Your task to perform on an android device: open chrome privacy settings Image 0: 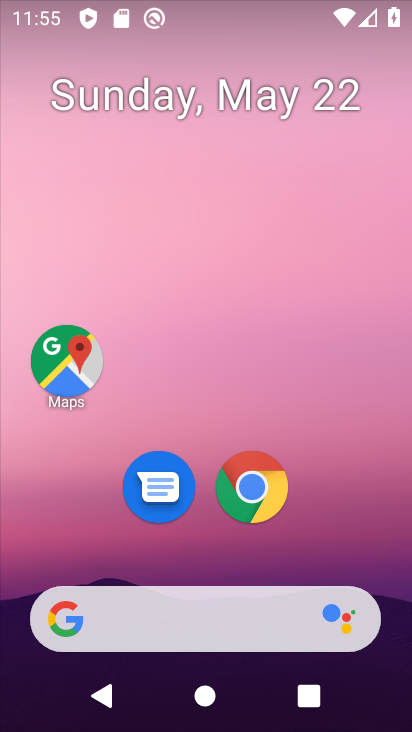
Step 0: click (261, 495)
Your task to perform on an android device: open chrome privacy settings Image 1: 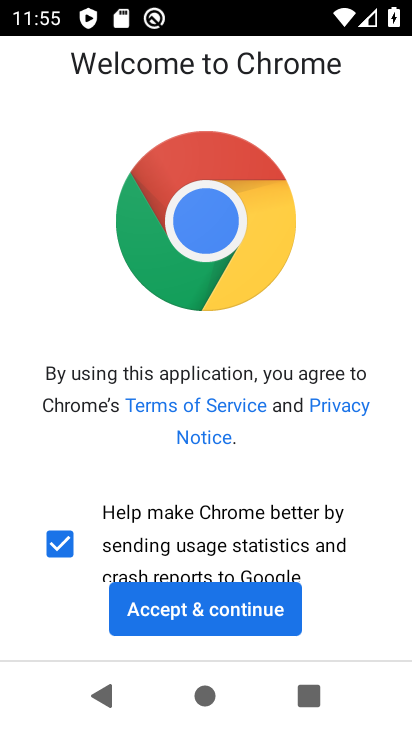
Step 1: click (226, 607)
Your task to perform on an android device: open chrome privacy settings Image 2: 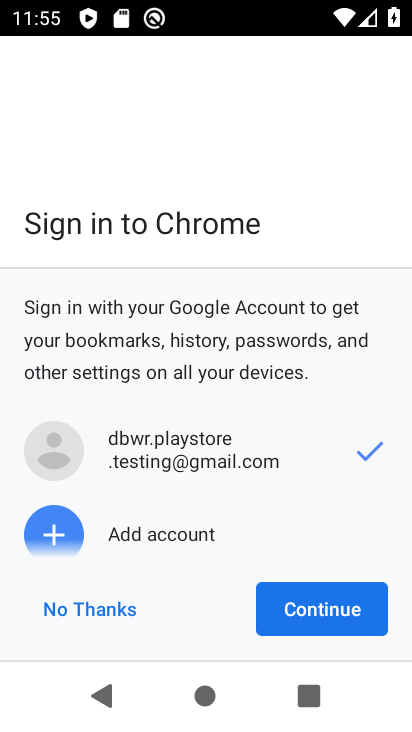
Step 2: click (310, 609)
Your task to perform on an android device: open chrome privacy settings Image 3: 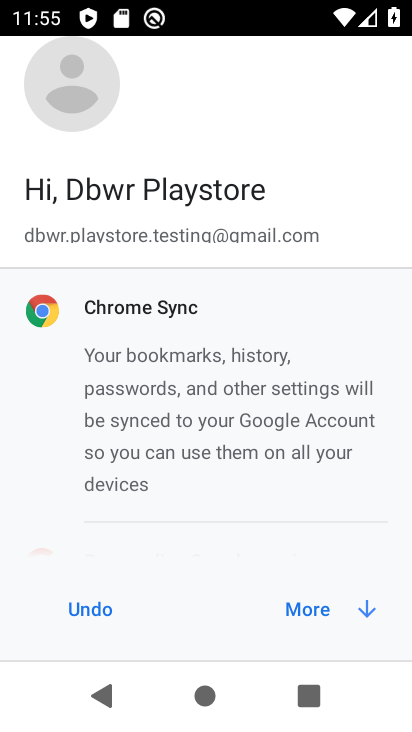
Step 3: click (310, 609)
Your task to perform on an android device: open chrome privacy settings Image 4: 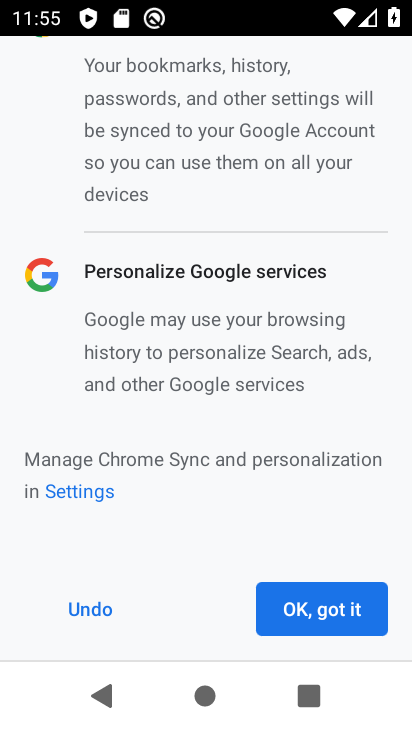
Step 4: click (310, 609)
Your task to perform on an android device: open chrome privacy settings Image 5: 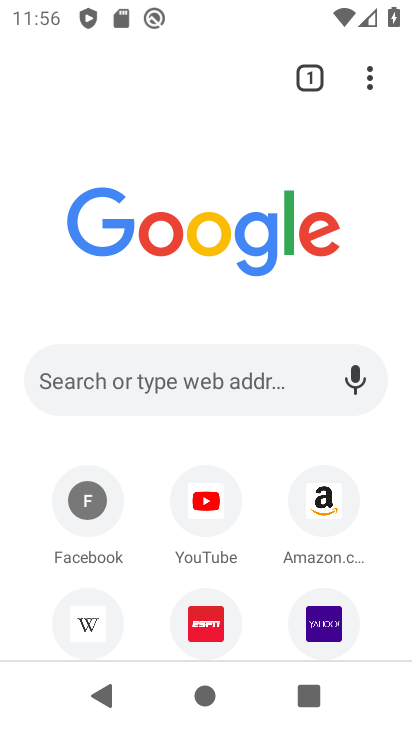
Step 5: click (367, 79)
Your task to perform on an android device: open chrome privacy settings Image 6: 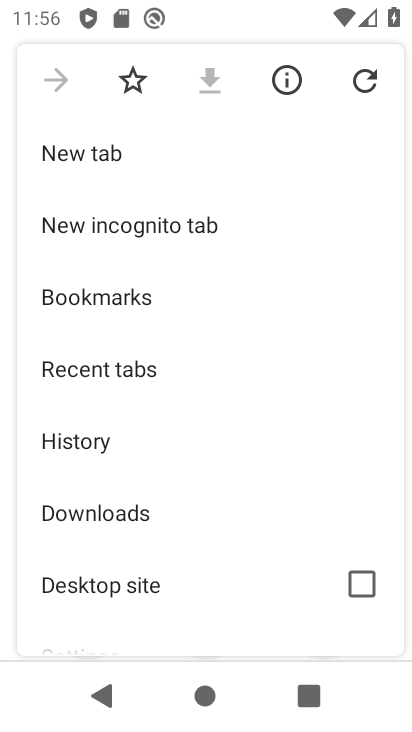
Step 6: drag from (209, 448) to (239, 126)
Your task to perform on an android device: open chrome privacy settings Image 7: 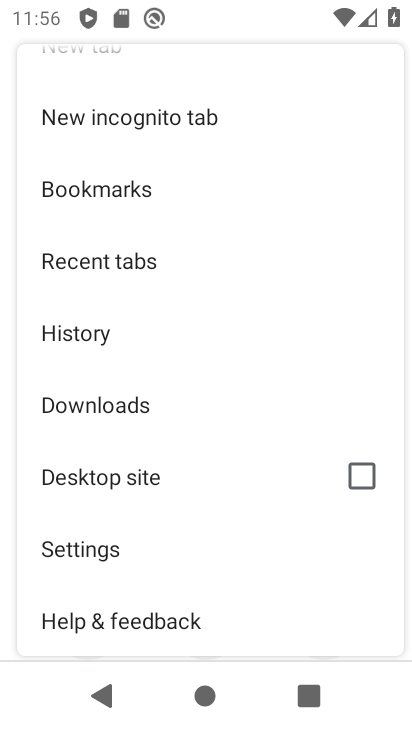
Step 7: click (154, 544)
Your task to perform on an android device: open chrome privacy settings Image 8: 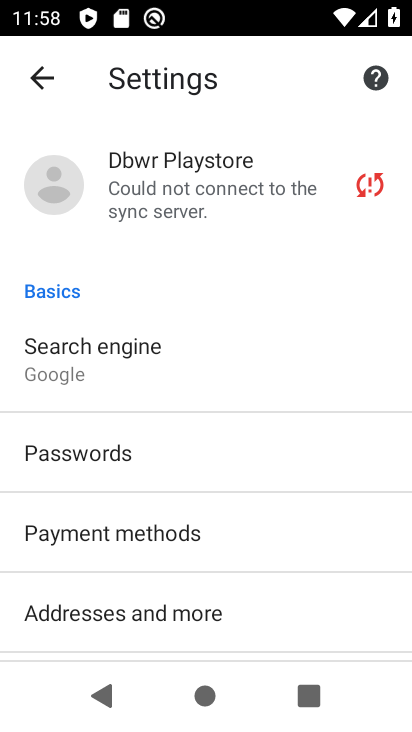
Step 8: drag from (283, 388) to (283, 261)
Your task to perform on an android device: open chrome privacy settings Image 9: 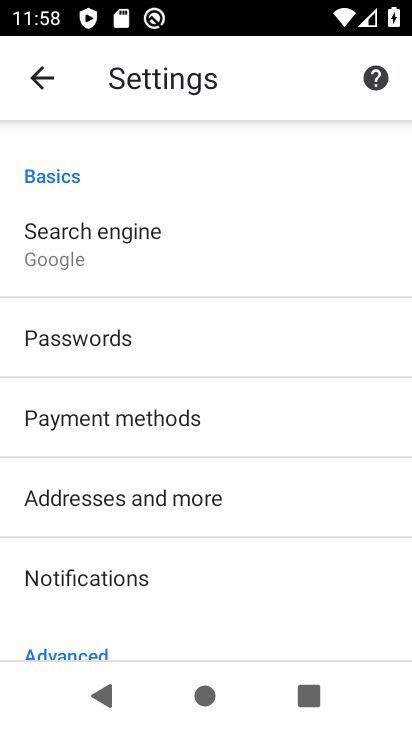
Step 9: drag from (89, 574) to (155, 224)
Your task to perform on an android device: open chrome privacy settings Image 10: 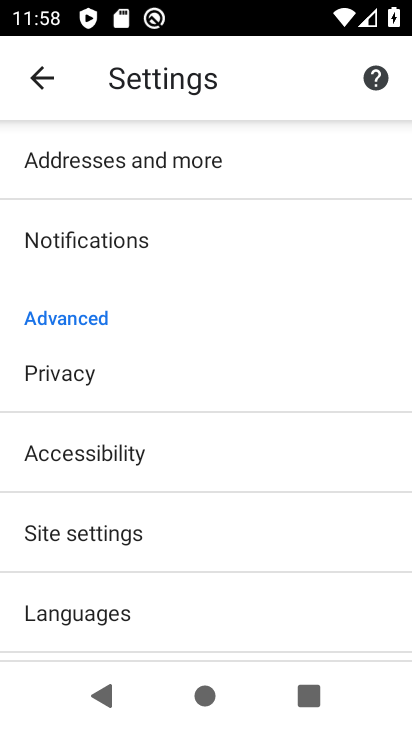
Step 10: click (122, 368)
Your task to perform on an android device: open chrome privacy settings Image 11: 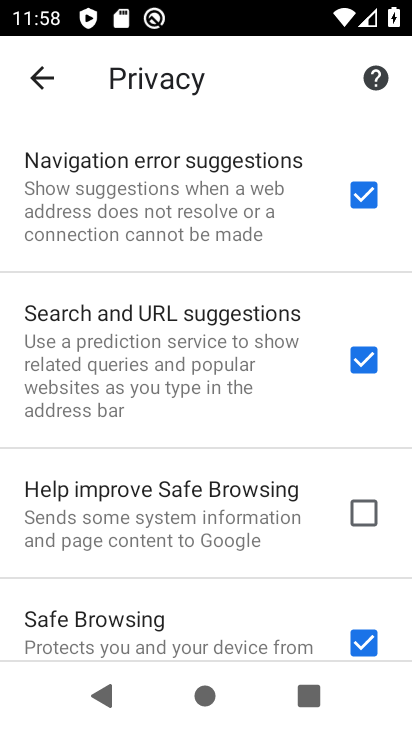
Step 11: task complete